Your task to perform on an android device: Open Reddit.com Image 0: 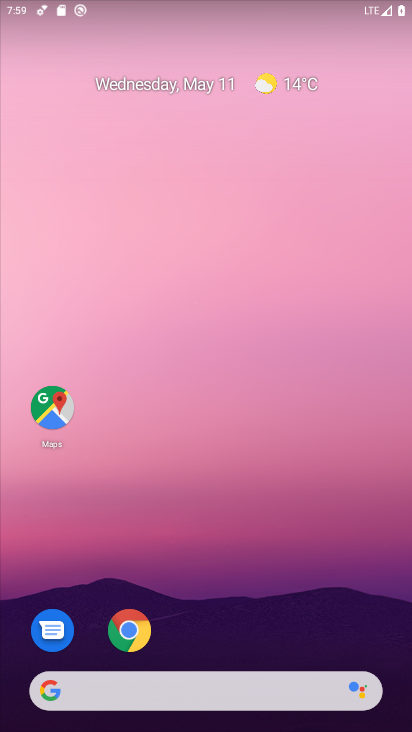
Step 0: click (131, 632)
Your task to perform on an android device: Open Reddit.com Image 1: 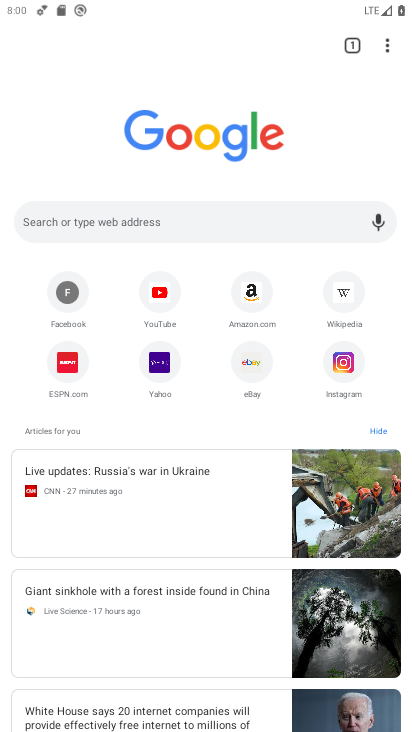
Step 1: click (246, 224)
Your task to perform on an android device: Open Reddit.com Image 2: 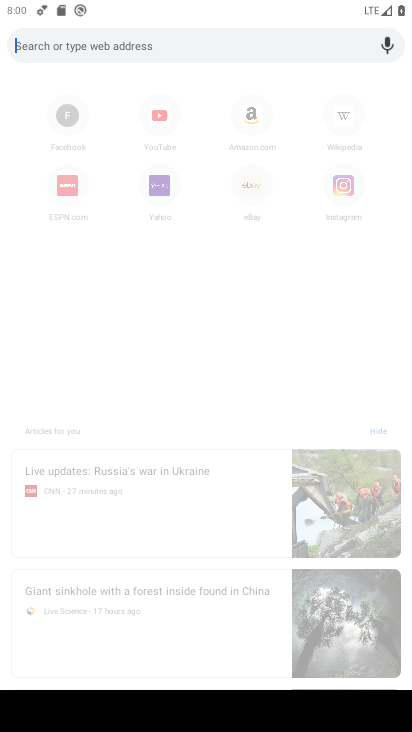
Step 2: click (204, 48)
Your task to perform on an android device: Open Reddit.com Image 3: 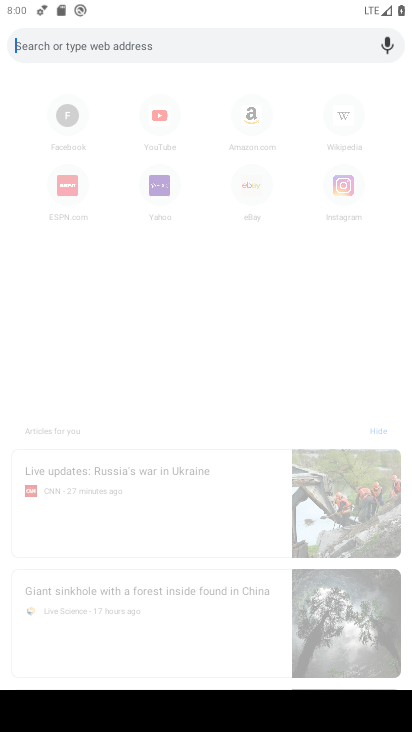
Step 3: click (215, 40)
Your task to perform on an android device: Open Reddit.com Image 4: 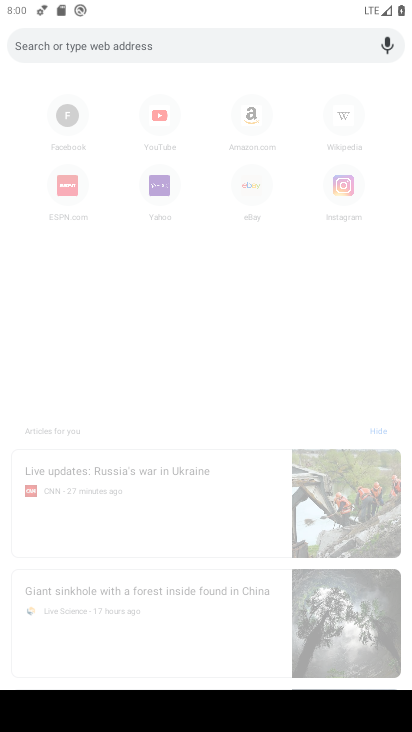
Step 4: type "Reddit.com"
Your task to perform on an android device: Open Reddit.com Image 5: 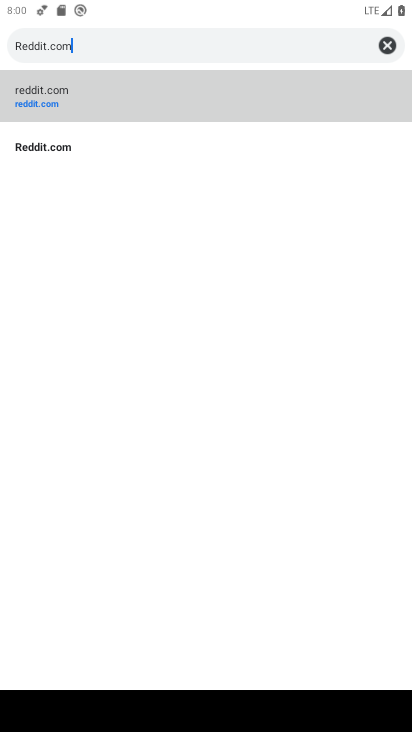
Step 5: type ""
Your task to perform on an android device: Open Reddit.com Image 6: 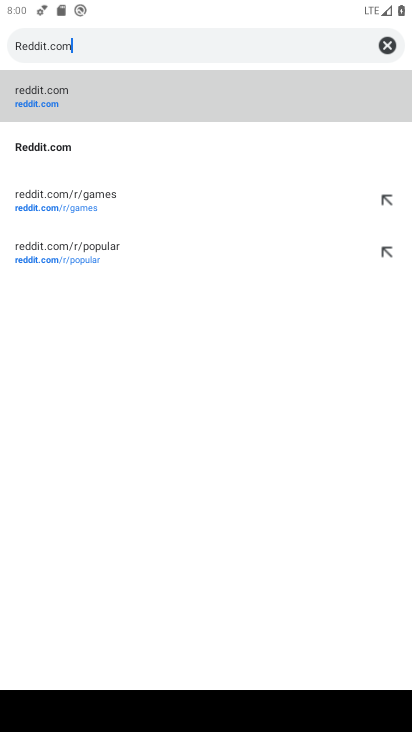
Step 6: click (62, 146)
Your task to perform on an android device: Open Reddit.com Image 7: 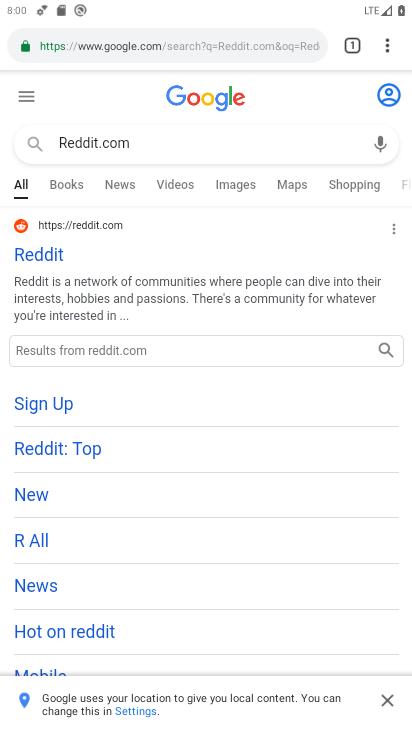
Step 7: task complete